Your task to perform on an android device: Go to Yahoo.com Image 0: 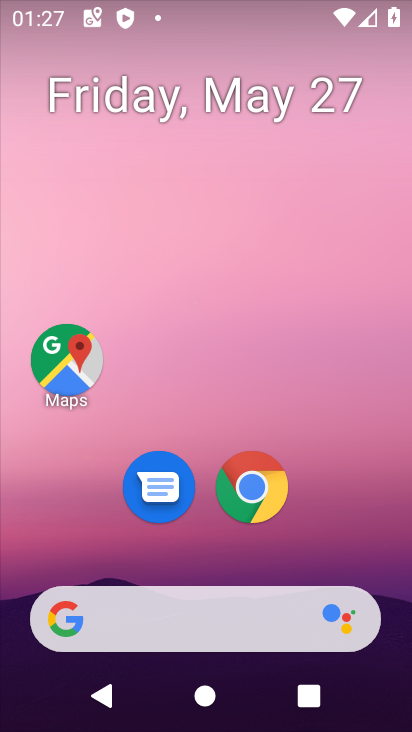
Step 0: click (259, 502)
Your task to perform on an android device: Go to Yahoo.com Image 1: 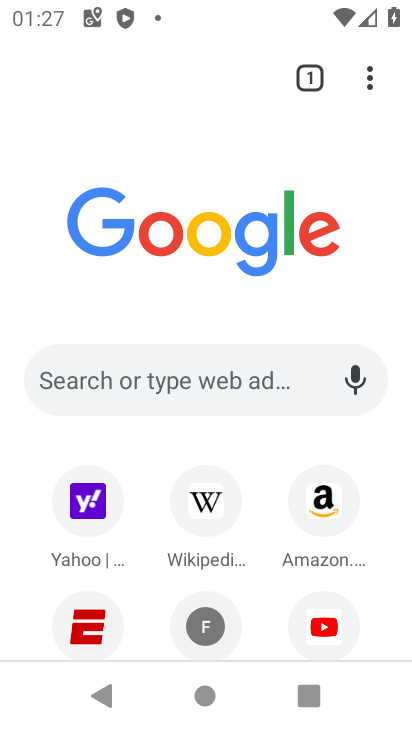
Step 1: click (79, 511)
Your task to perform on an android device: Go to Yahoo.com Image 2: 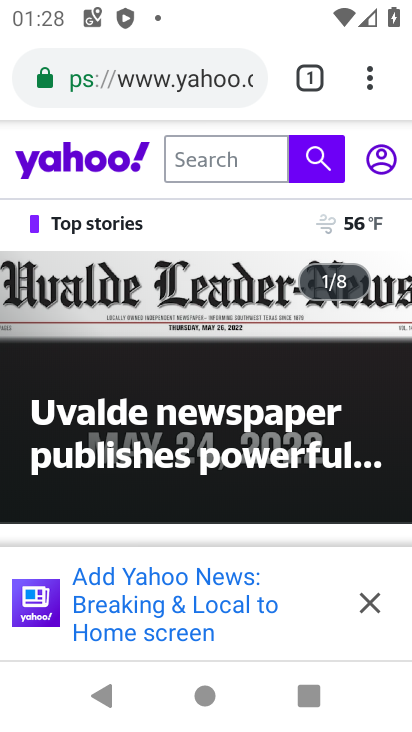
Step 2: task complete